Your task to perform on an android device: Open wifi settings Image 0: 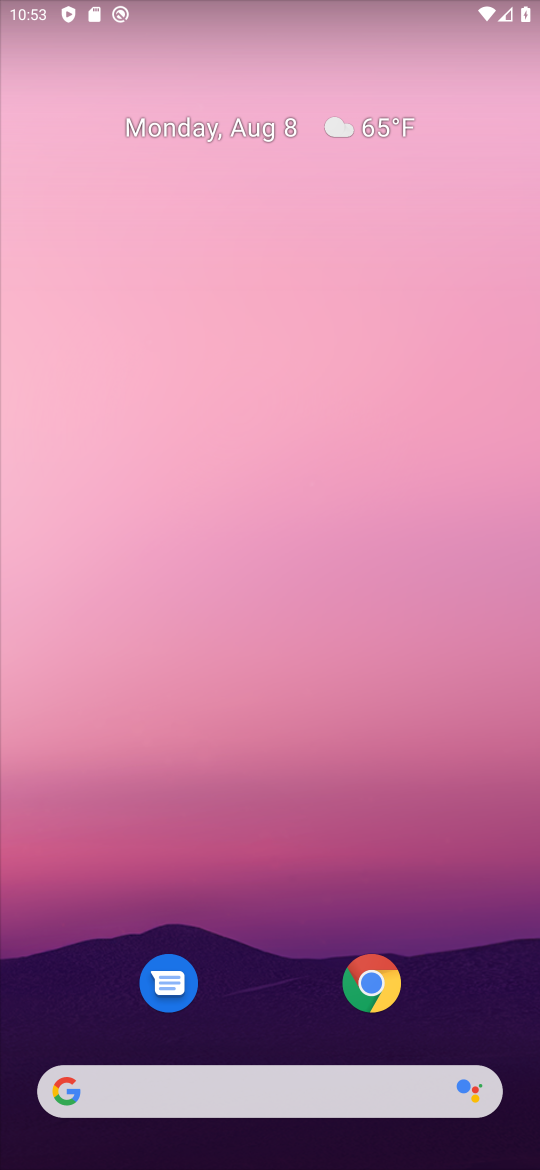
Step 0: drag from (321, 1028) to (283, 629)
Your task to perform on an android device: Open wifi settings Image 1: 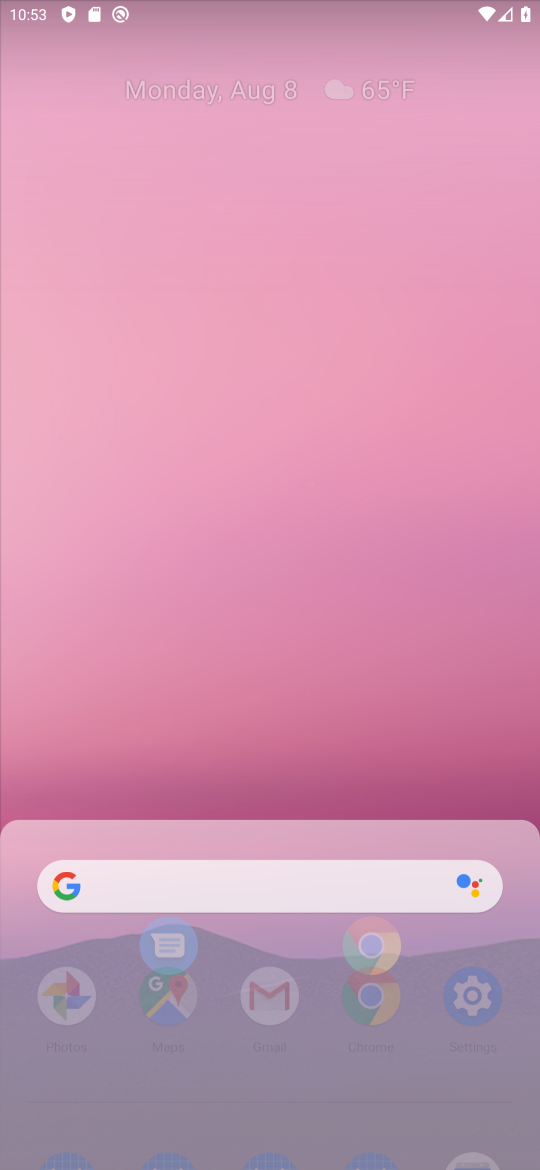
Step 1: click (283, 629)
Your task to perform on an android device: Open wifi settings Image 2: 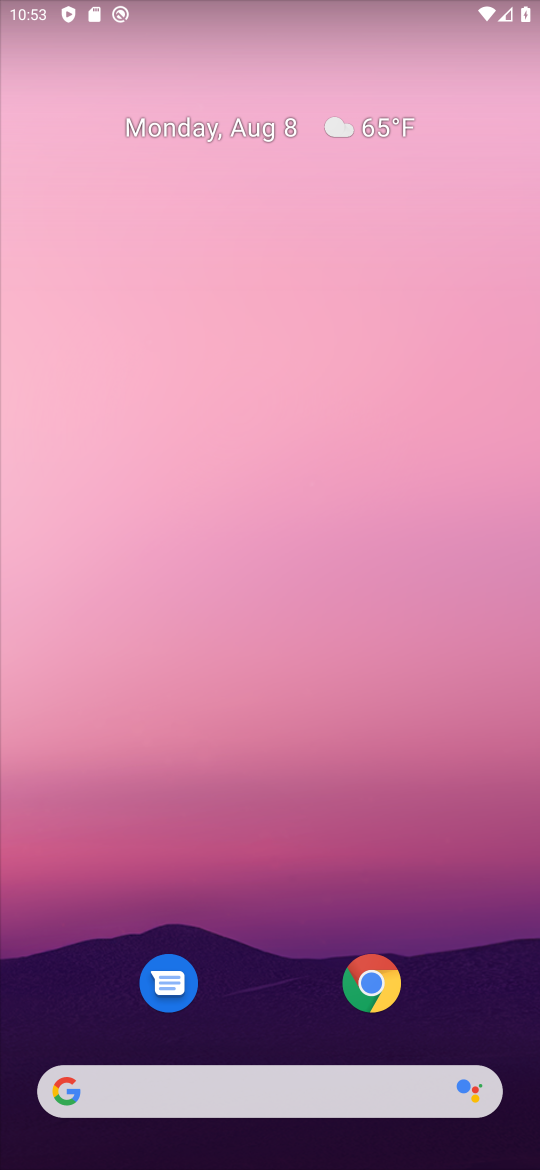
Step 2: drag from (254, 1045) to (453, 0)
Your task to perform on an android device: Open wifi settings Image 3: 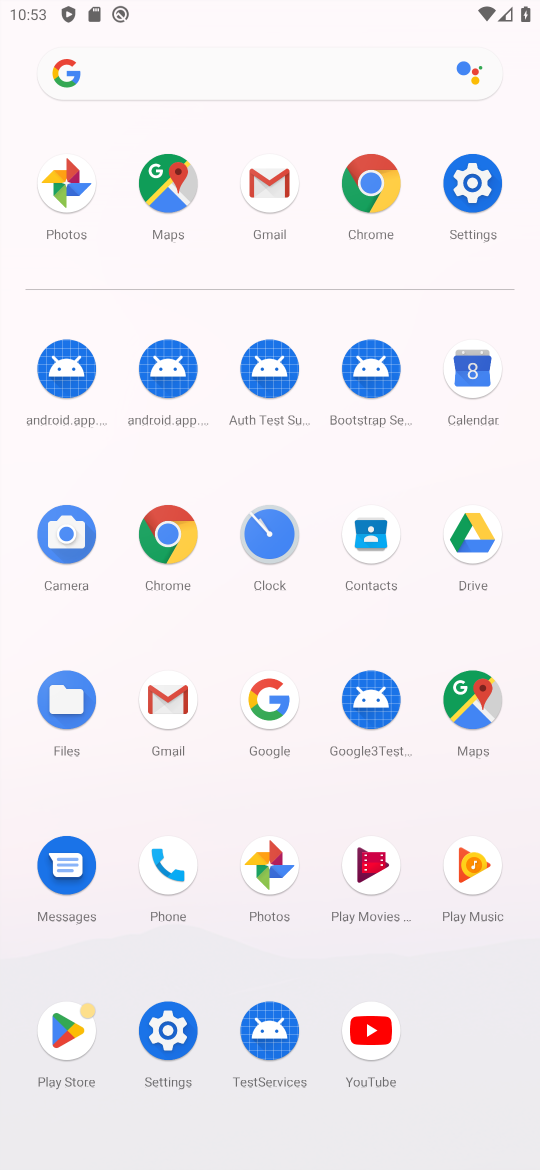
Step 3: click (480, 187)
Your task to perform on an android device: Open wifi settings Image 4: 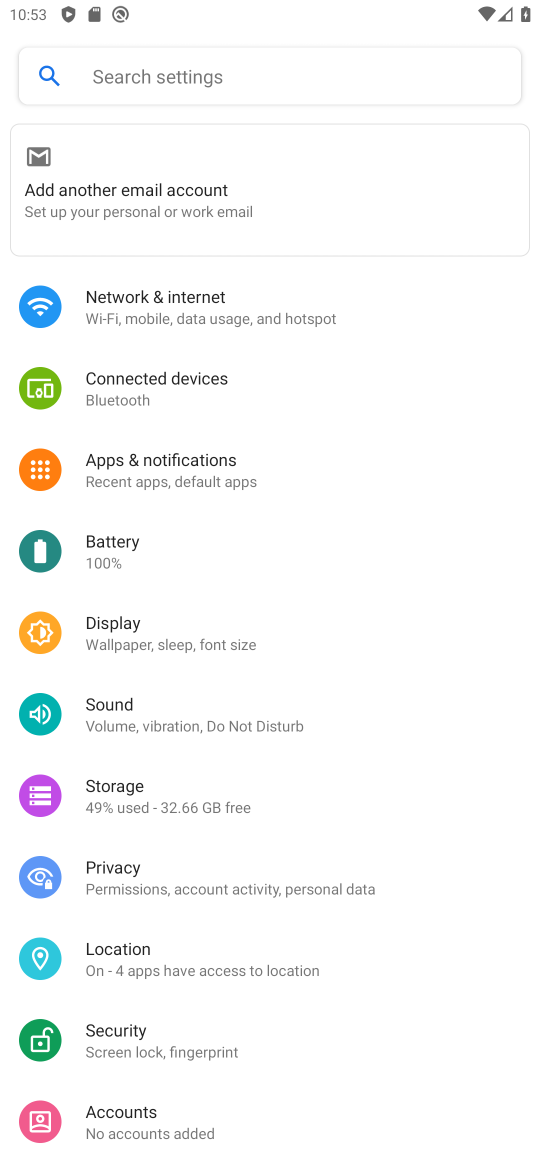
Step 4: click (213, 303)
Your task to perform on an android device: Open wifi settings Image 5: 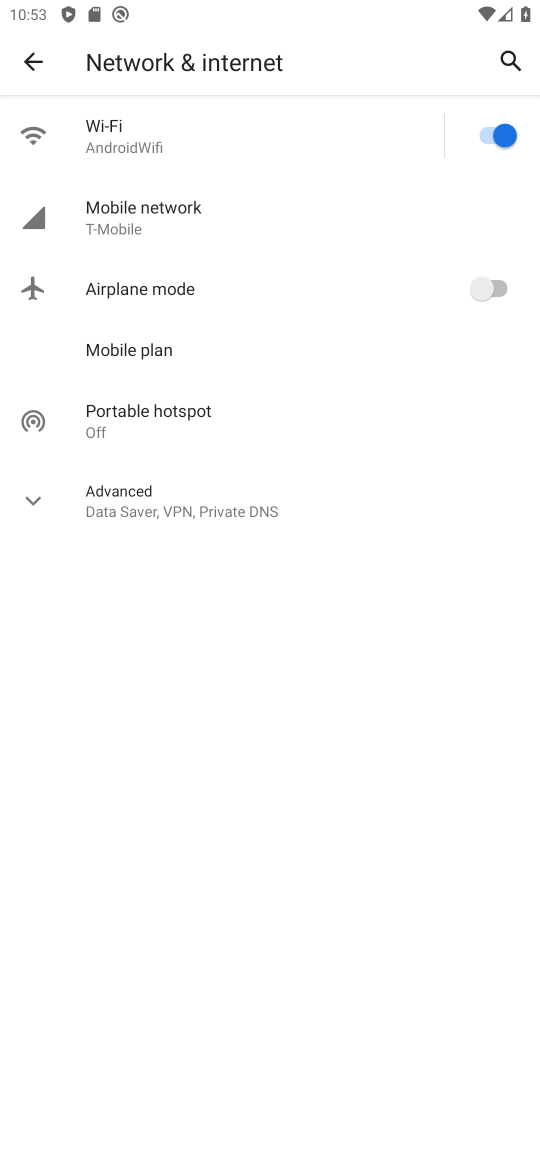
Step 5: task complete